Your task to perform on an android device: Search for duracell triple a on walmart, select the first entry, add it to the cart, then select checkout. Image 0: 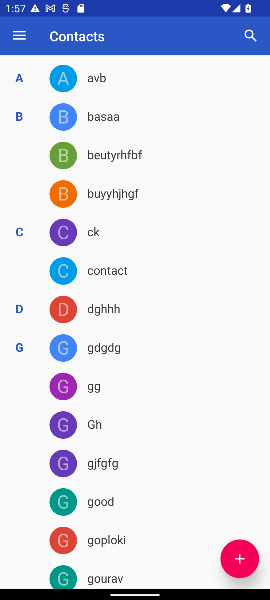
Step 0: press home button
Your task to perform on an android device: Search for duracell triple a on walmart, select the first entry, add it to the cart, then select checkout. Image 1: 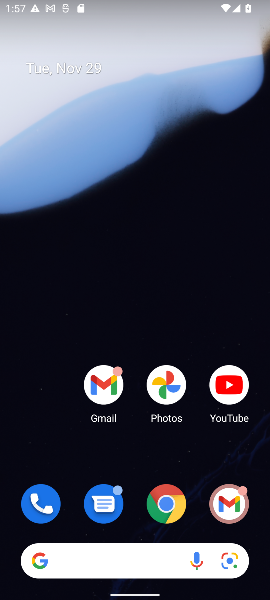
Step 1: click (161, 508)
Your task to perform on an android device: Search for duracell triple a on walmart, select the first entry, add it to the cart, then select checkout. Image 2: 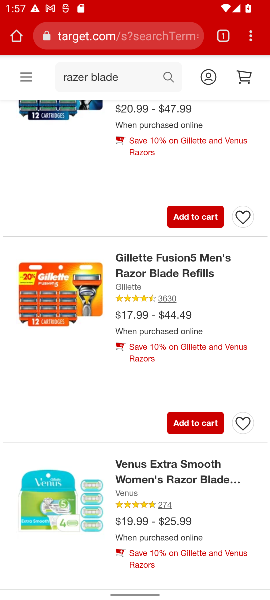
Step 2: click (80, 36)
Your task to perform on an android device: Search for duracell triple a on walmart, select the first entry, add it to the cart, then select checkout. Image 3: 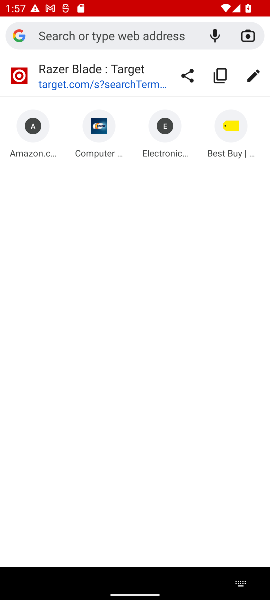
Step 3: type "walmart.com"
Your task to perform on an android device: Search for duracell triple a on walmart, select the first entry, add it to the cart, then select checkout. Image 4: 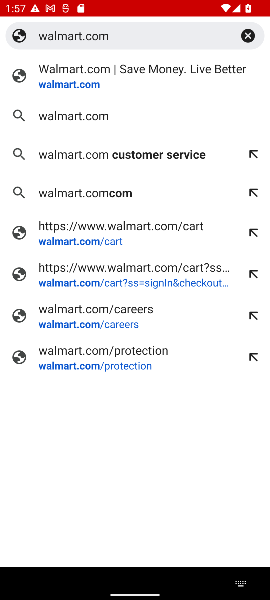
Step 4: click (55, 86)
Your task to perform on an android device: Search for duracell triple a on walmart, select the first entry, add it to the cart, then select checkout. Image 5: 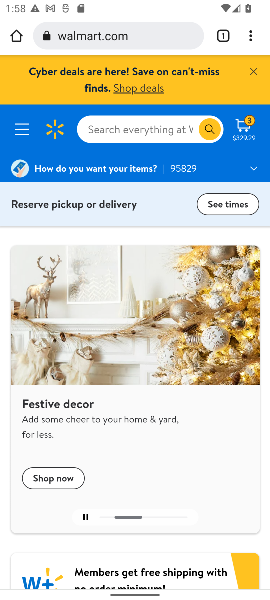
Step 5: click (117, 129)
Your task to perform on an android device: Search for duracell triple a on walmart, select the first entry, add it to the cart, then select checkout. Image 6: 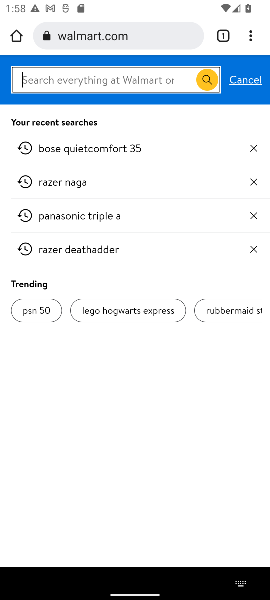
Step 6: type "duracell triple a"
Your task to perform on an android device: Search for duracell triple a on walmart, select the first entry, add it to the cart, then select checkout. Image 7: 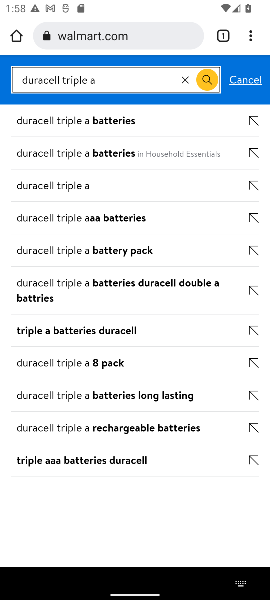
Step 7: click (45, 122)
Your task to perform on an android device: Search for duracell triple a on walmart, select the first entry, add it to the cart, then select checkout. Image 8: 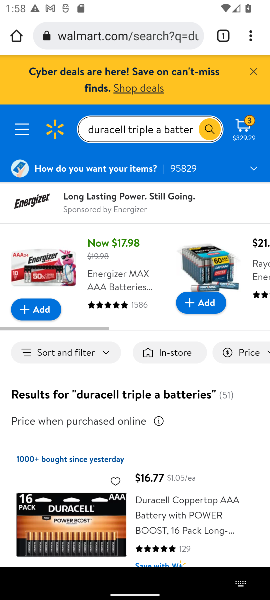
Step 8: drag from (128, 382) to (131, 210)
Your task to perform on an android device: Search for duracell triple a on walmart, select the first entry, add it to the cart, then select checkout. Image 9: 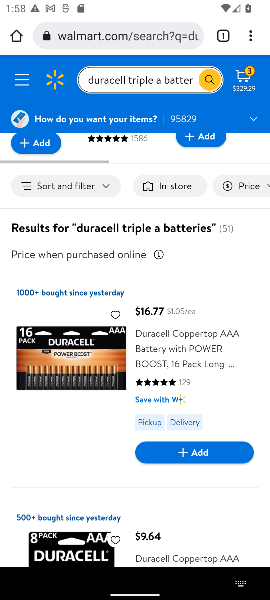
Step 9: click (185, 460)
Your task to perform on an android device: Search for duracell triple a on walmart, select the first entry, add it to the cart, then select checkout. Image 10: 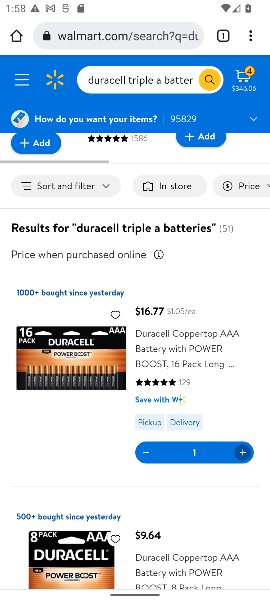
Step 10: click (254, 78)
Your task to perform on an android device: Search for duracell triple a on walmart, select the first entry, add it to the cart, then select checkout. Image 11: 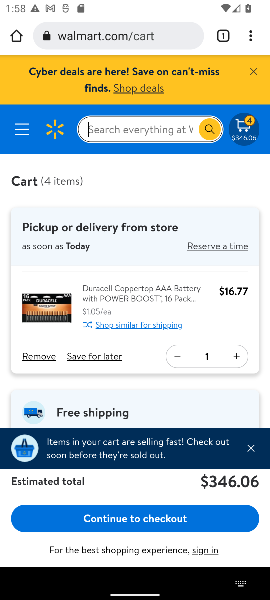
Step 11: click (118, 515)
Your task to perform on an android device: Search for duracell triple a on walmart, select the first entry, add it to the cart, then select checkout. Image 12: 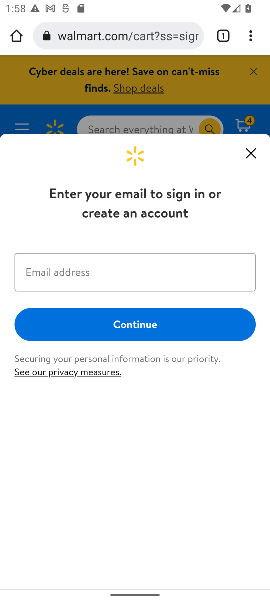
Step 12: task complete